Your task to perform on an android device: check data usage Image 0: 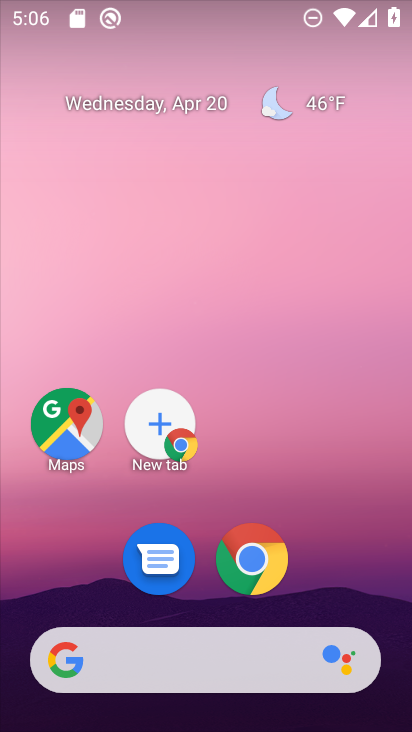
Step 0: drag from (334, 590) to (284, 269)
Your task to perform on an android device: check data usage Image 1: 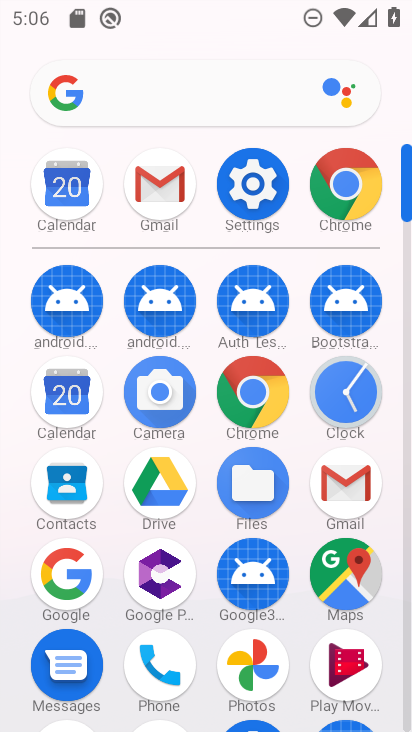
Step 1: click (244, 226)
Your task to perform on an android device: check data usage Image 2: 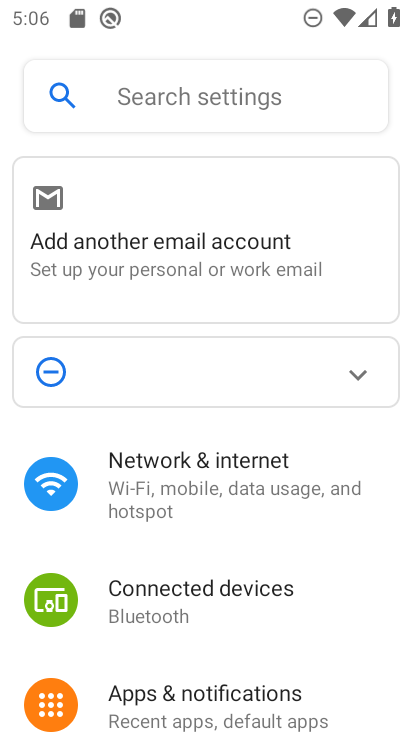
Step 2: click (194, 502)
Your task to perform on an android device: check data usage Image 3: 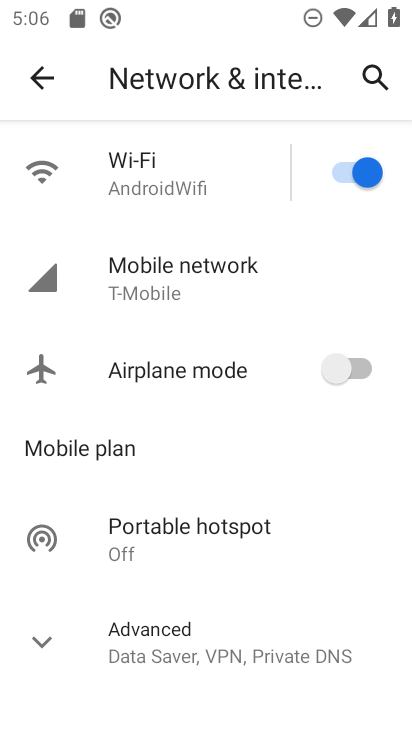
Step 3: click (221, 298)
Your task to perform on an android device: check data usage Image 4: 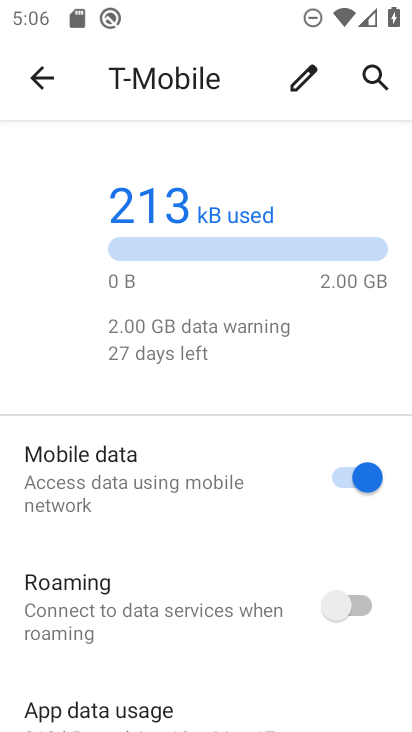
Step 4: task complete